Your task to perform on an android device: empty trash in the gmail app Image 0: 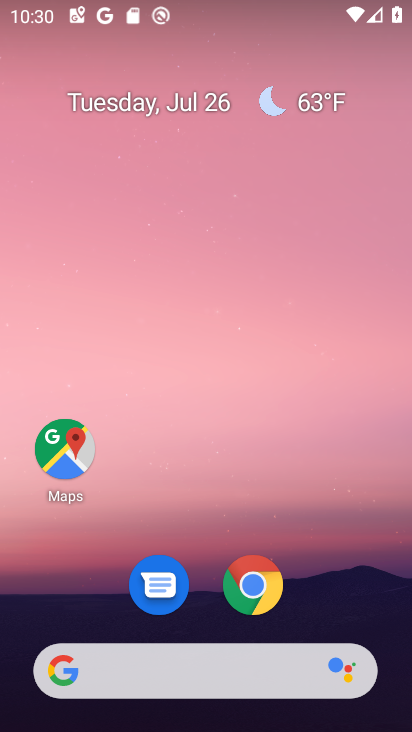
Step 0: drag from (278, 499) to (322, 1)
Your task to perform on an android device: empty trash in the gmail app Image 1: 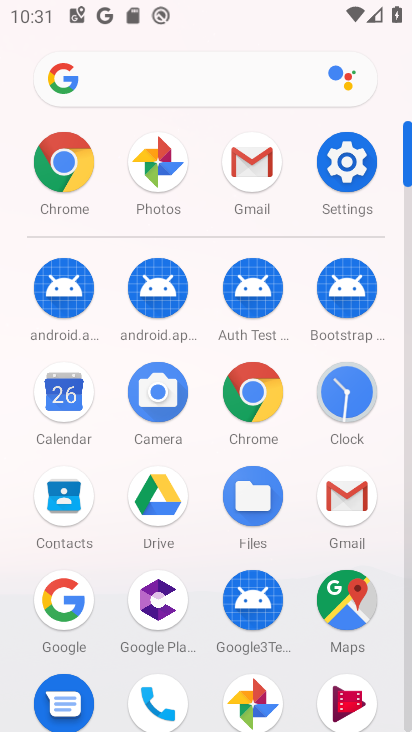
Step 1: click (255, 152)
Your task to perform on an android device: empty trash in the gmail app Image 2: 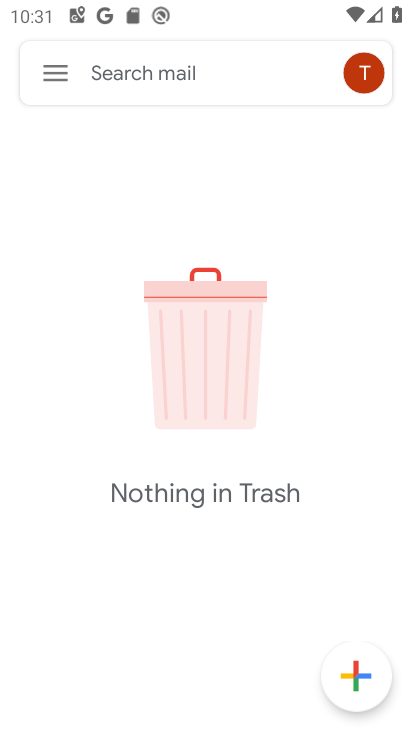
Step 2: click (60, 71)
Your task to perform on an android device: empty trash in the gmail app Image 3: 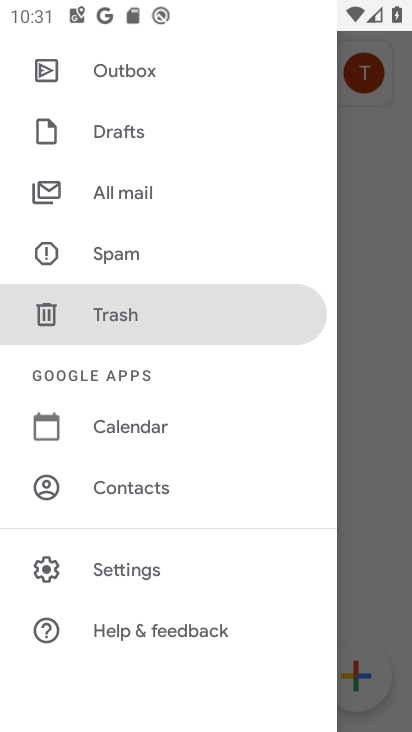
Step 3: click (149, 311)
Your task to perform on an android device: empty trash in the gmail app Image 4: 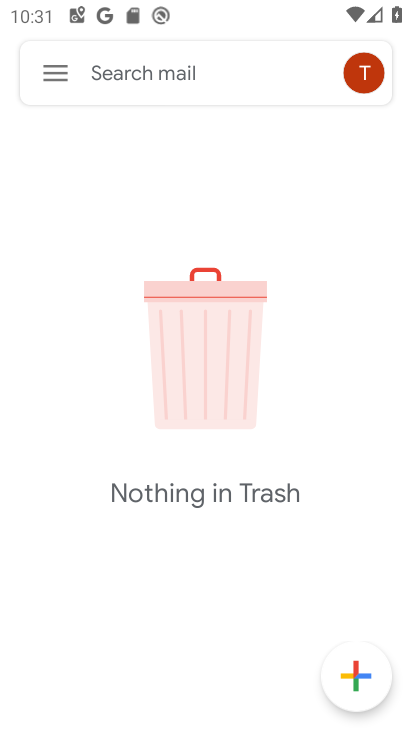
Step 4: task complete